Your task to perform on an android device: Open Maps and search for coffee Image 0: 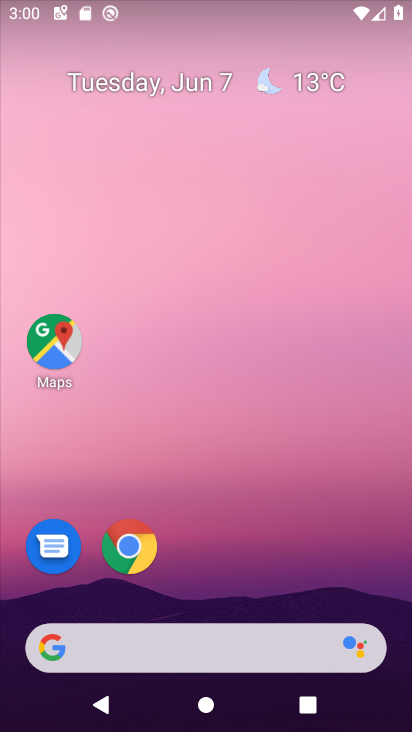
Step 0: drag from (308, 562) to (303, 260)
Your task to perform on an android device: Open Maps and search for coffee Image 1: 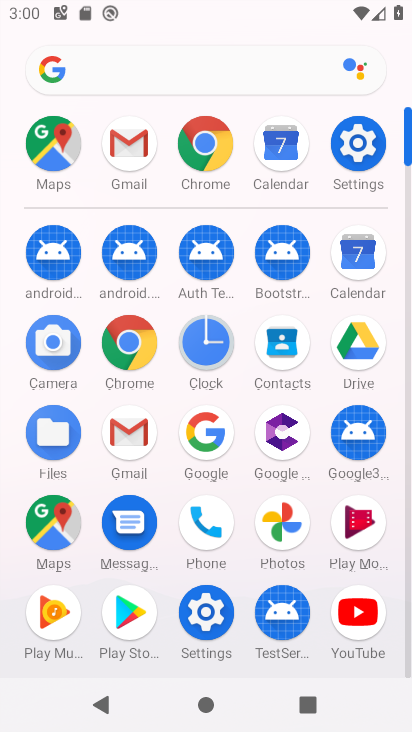
Step 1: click (65, 531)
Your task to perform on an android device: Open Maps and search for coffee Image 2: 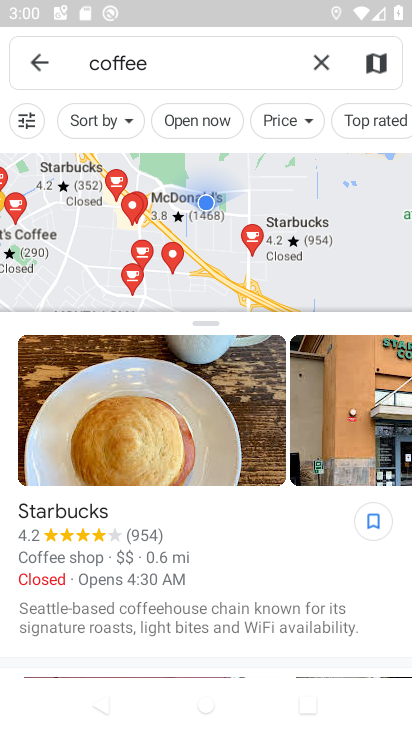
Step 2: task complete